Your task to perform on an android device: Show me popular games on the Play Store Image 0: 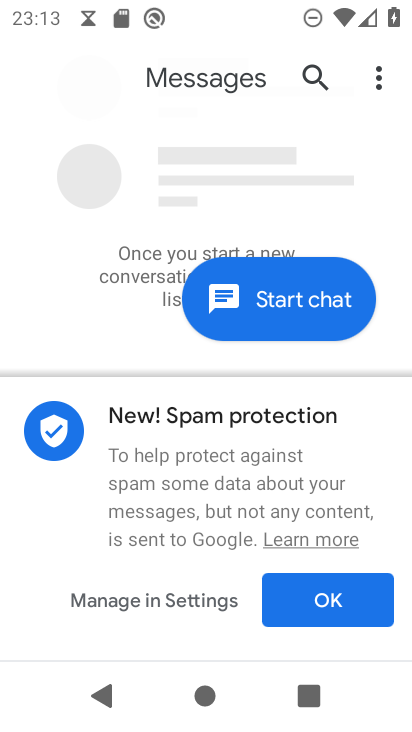
Step 0: press home button
Your task to perform on an android device: Show me popular games on the Play Store Image 1: 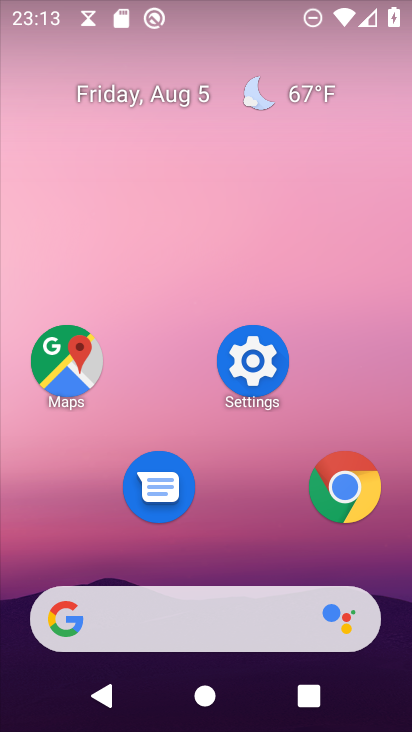
Step 1: drag from (158, 625) to (245, 99)
Your task to perform on an android device: Show me popular games on the Play Store Image 2: 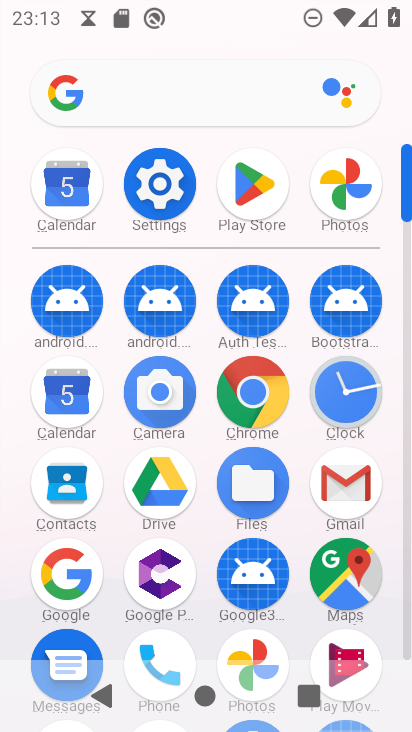
Step 2: drag from (207, 602) to (300, 198)
Your task to perform on an android device: Show me popular games on the Play Store Image 3: 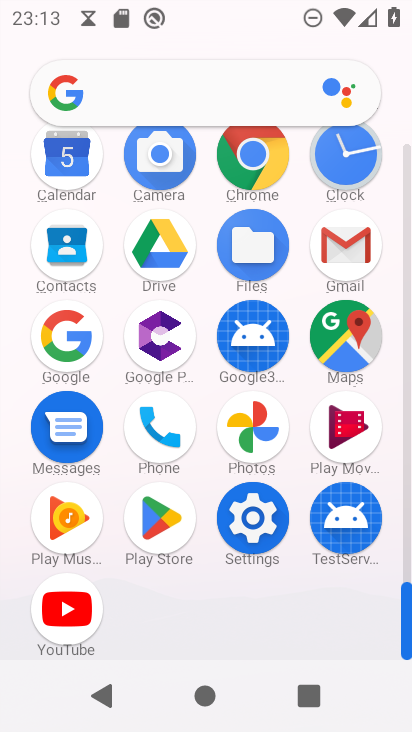
Step 3: click (154, 518)
Your task to perform on an android device: Show me popular games on the Play Store Image 4: 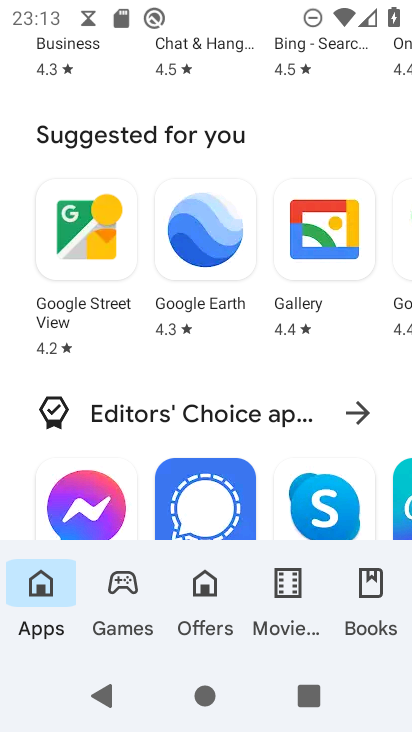
Step 4: click (121, 609)
Your task to perform on an android device: Show me popular games on the Play Store Image 5: 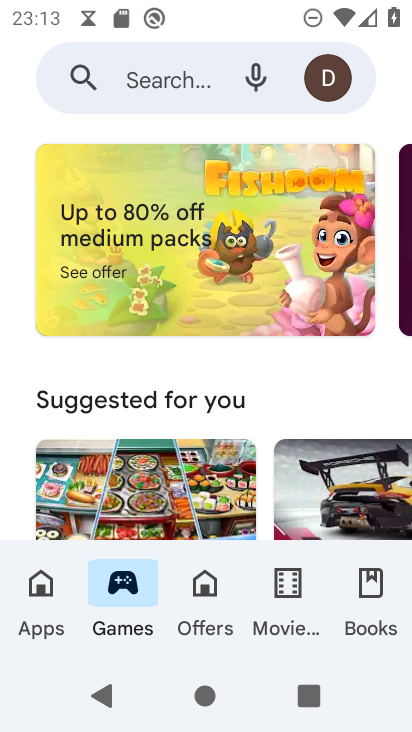
Step 5: task complete